Your task to perform on an android device: Open CNN.com Image 0: 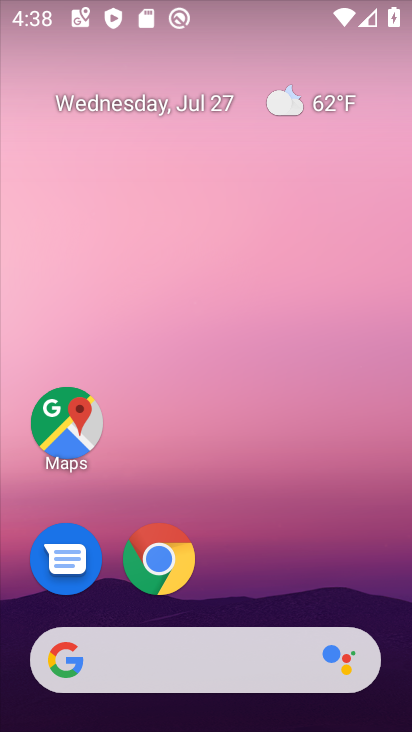
Step 0: click (158, 559)
Your task to perform on an android device: Open CNN.com Image 1: 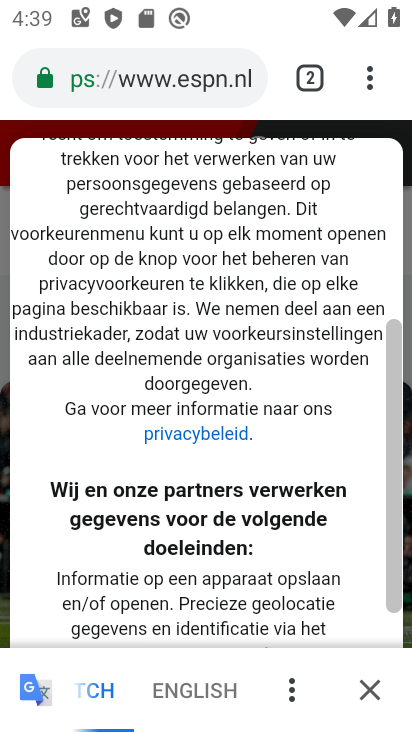
Step 1: click (310, 81)
Your task to perform on an android device: Open CNN.com Image 2: 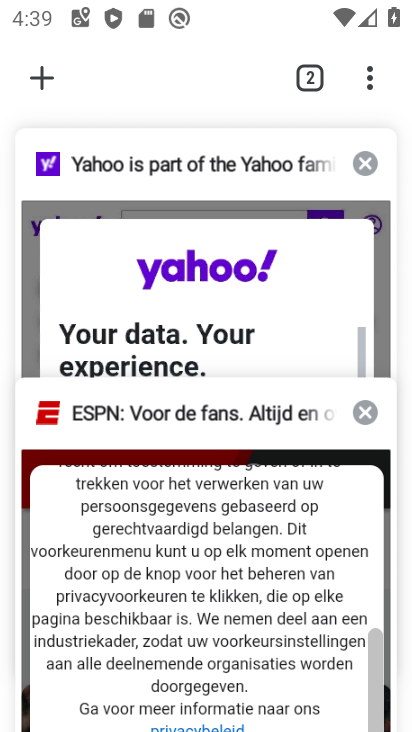
Step 2: click (54, 69)
Your task to perform on an android device: Open CNN.com Image 3: 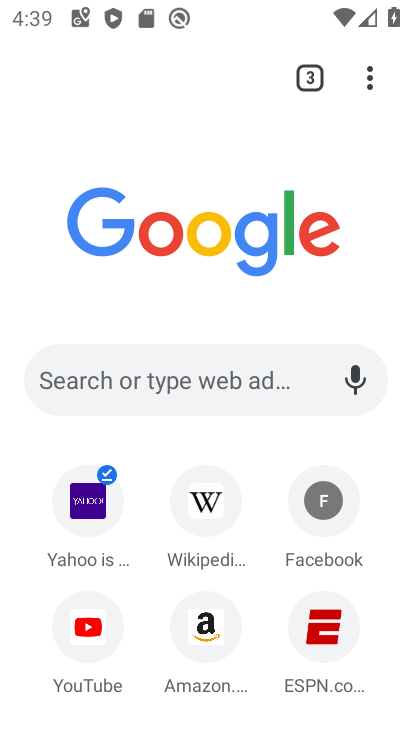
Step 3: click (165, 380)
Your task to perform on an android device: Open CNN.com Image 4: 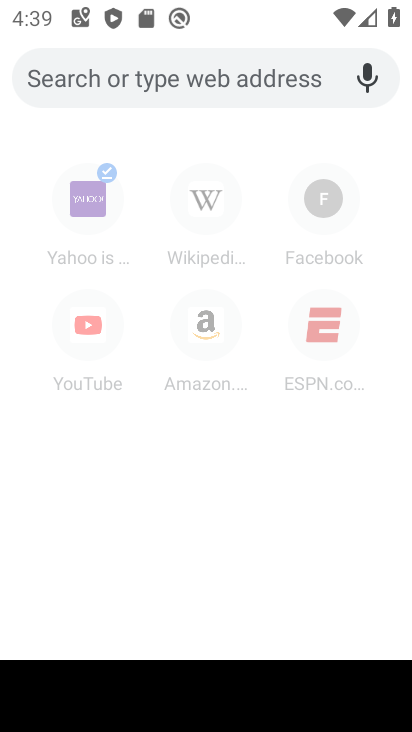
Step 4: type "cnn.com"
Your task to perform on an android device: Open CNN.com Image 5: 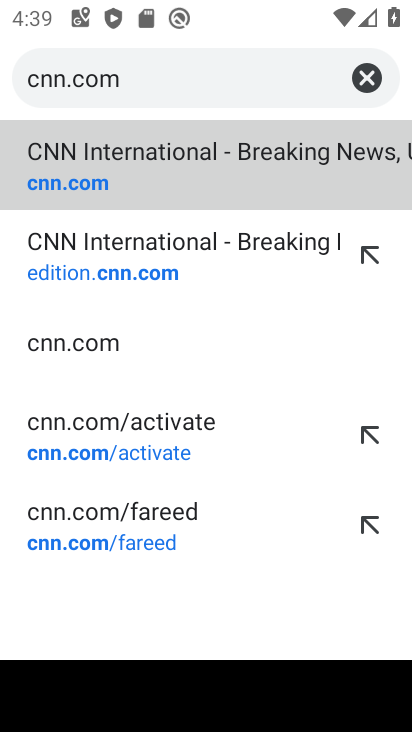
Step 5: click (170, 158)
Your task to perform on an android device: Open CNN.com Image 6: 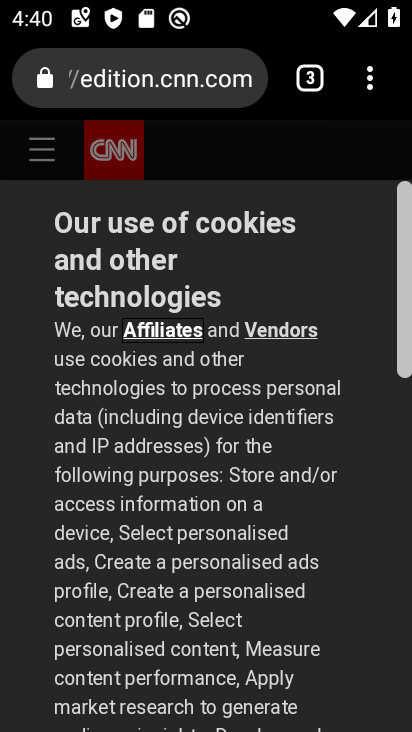
Step 6: task complete